Your task to perform on an android device: Search for seafood restaurants on Google Maps Image 0: 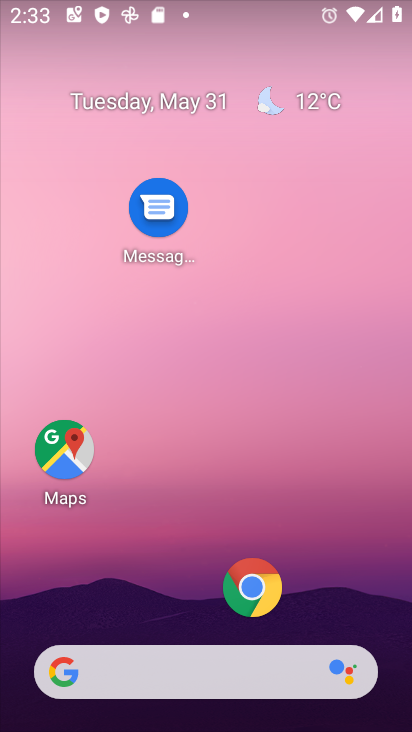
Step 0: click (323, 10)
Your task to perform on an android device: Search for seafood restaurants on Google Maps Image 1: 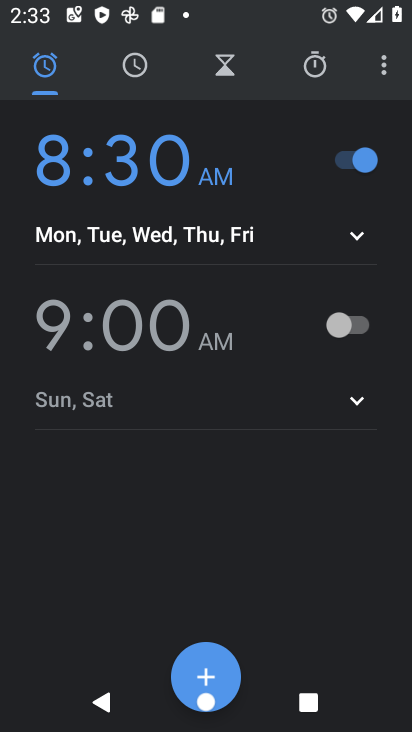
Step 1: drag from (197, 593) to (347, 74)
Your task to perform on an android device: Search for seafood restaurants on Google Maps Image 2: 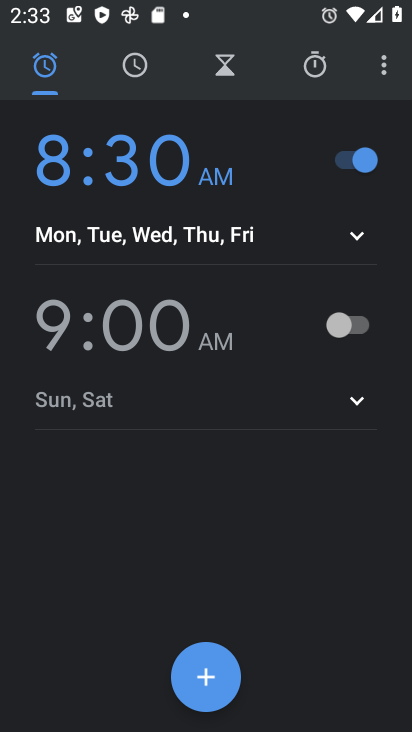
Step 2: press home button
Your task to perform on an android device: Search for seafood restaurants on Google Maps Image 3: 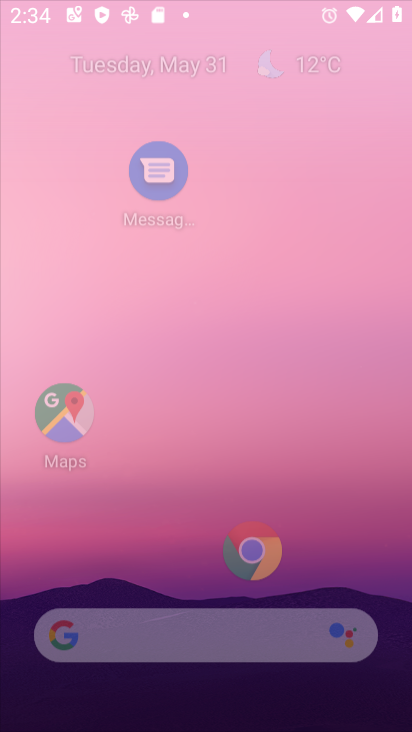
Step 3: drag from (210, 588) to (308, 119)
Your task to perform on an android device: Search for seafood restaurants on Google Maps Image 4: 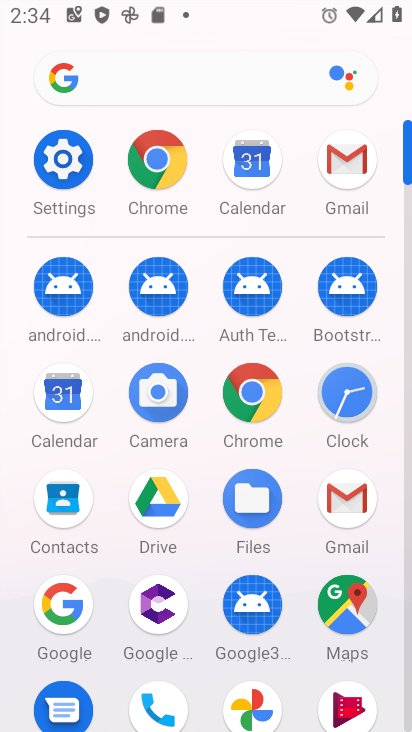
Step 4: click (353, 615)
Your task to perform on an android device: Search for seafood restaurants on Google Maps Image 5: 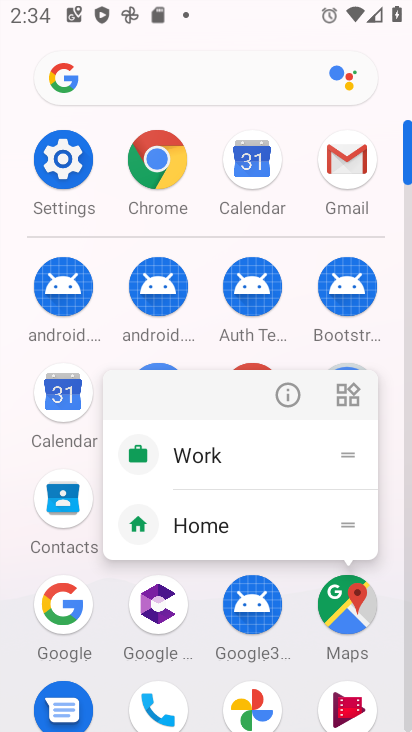
Step 5: click (289, 399)
Your task to perform on an android device: Search for seafood restaurants on Google Maps Image 6: 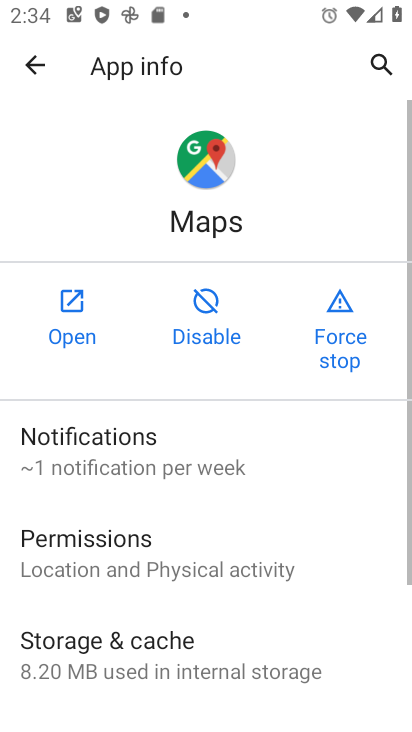
Step 6: click (80, 336)
Your task to perform on an android device: Search for seafood restaurants on Google Maps Image 7: 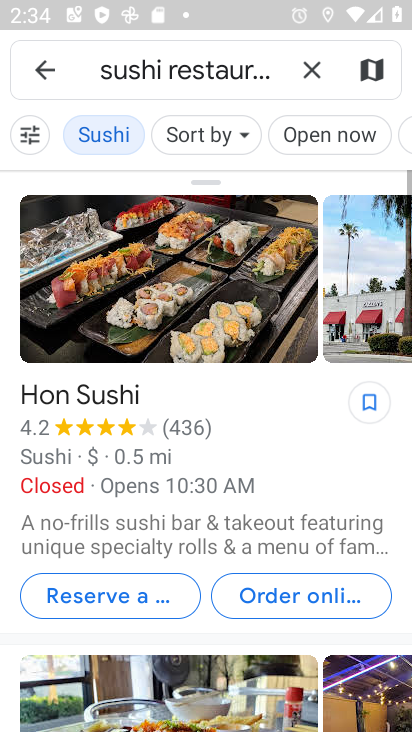
Step 7: click (310, 68)
Your task to perform on an android device: Search for seafood restaurants on Google Maps Image 8: 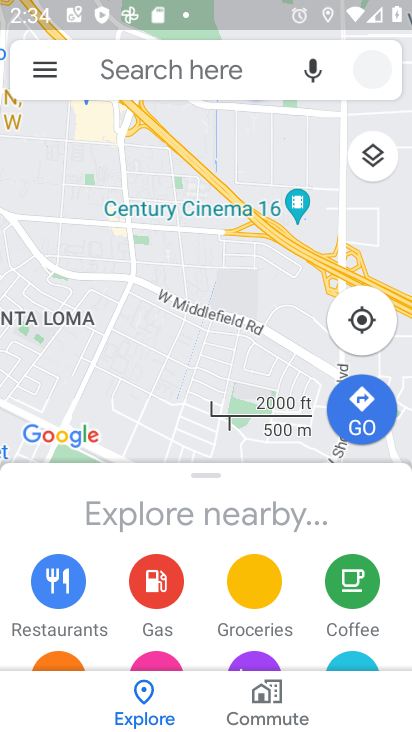
Step 8: click (155, 82)
Your task to perform on an android device: Search for seafood restaurants on Google Maps Image 9: 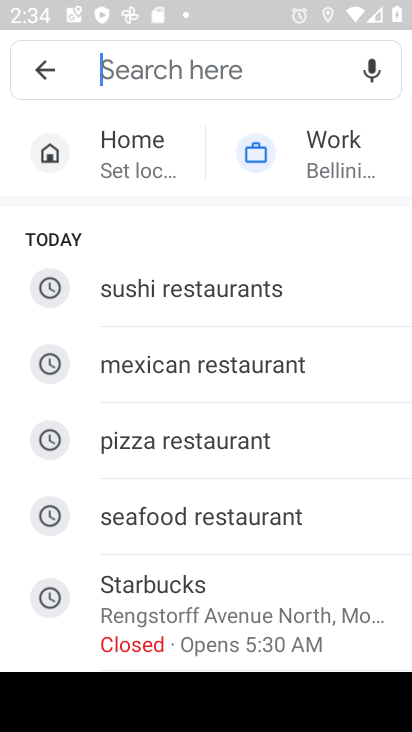
Step 9: drag from (261, 534) to (323, 204)
Your task to perform on an android device: Search for seafood restaurants on Google Maps Image 10: 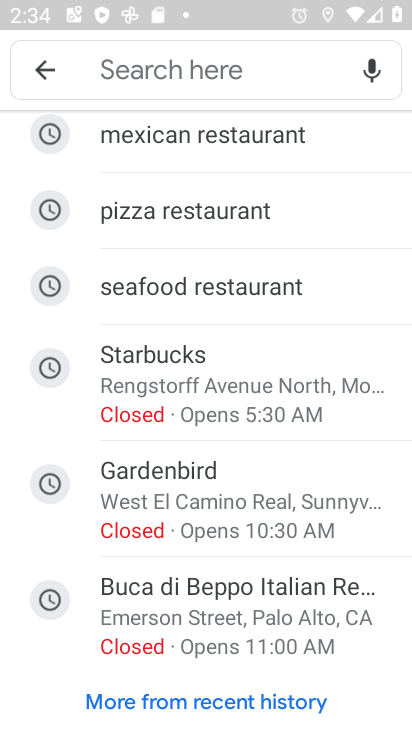
Step 10: click (177, 296)
Your task to perform on an android device: Search for seafood restaurants on Google Maps Image 11: 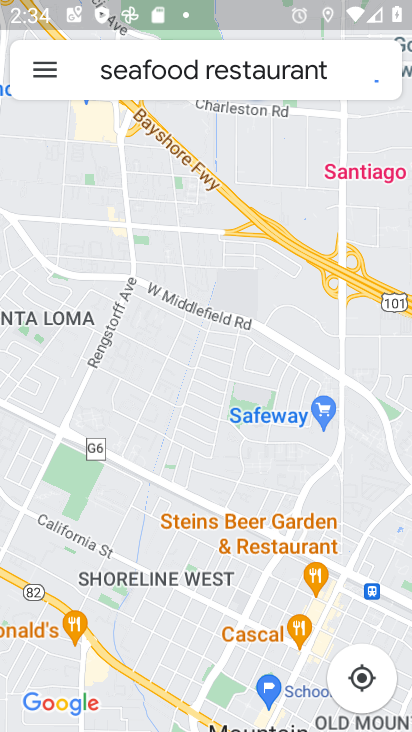
Step 11: task complete